Your task to perform on an android device: set default search engine in the chrome app Image 0: 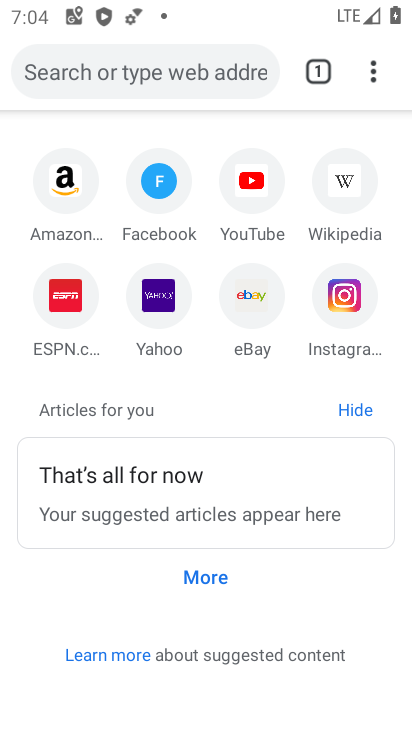
Step 0: press home button
Your task to perform on an android device: set default search engine in the chrome app Image 1: 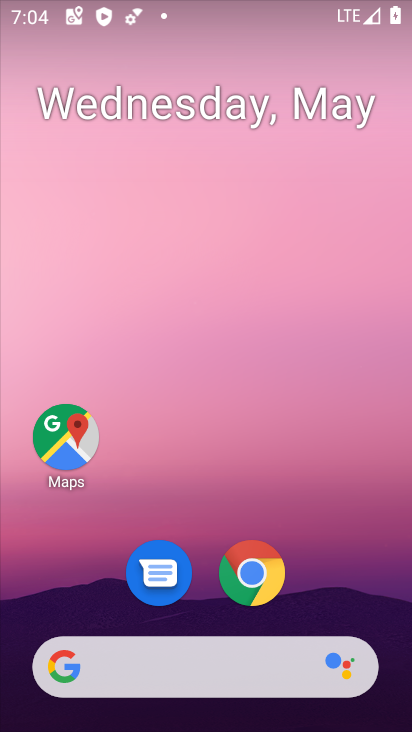
Step 1: drag from (303, 605) to (296, 265)
Your task to perform on an android device: set default search engine in the chrome app Image 2: 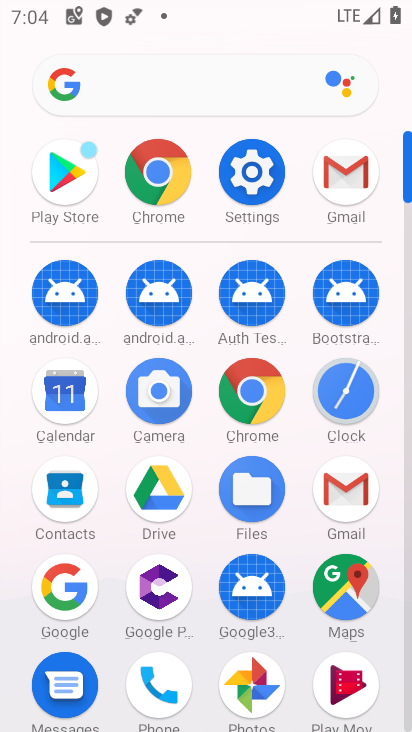
Step 2: click (253, 214)
Your task to perform on an android device: set default search engine in the chrome app Image 3: 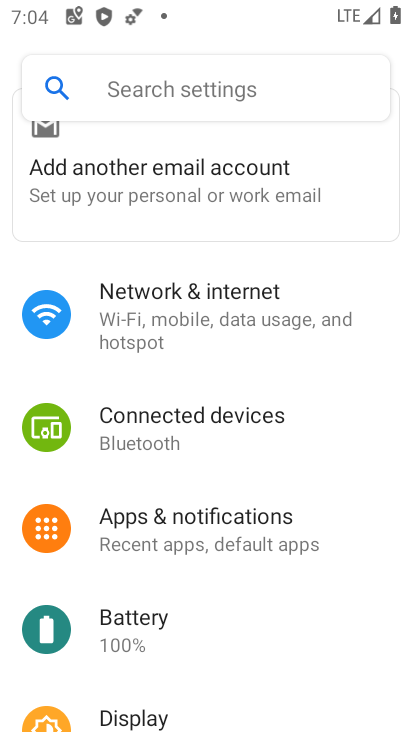
Step 3: drag from (251, 325) to (257, 267)
Your task to perform on an android device: set default search engine in the chrome app Image 4: 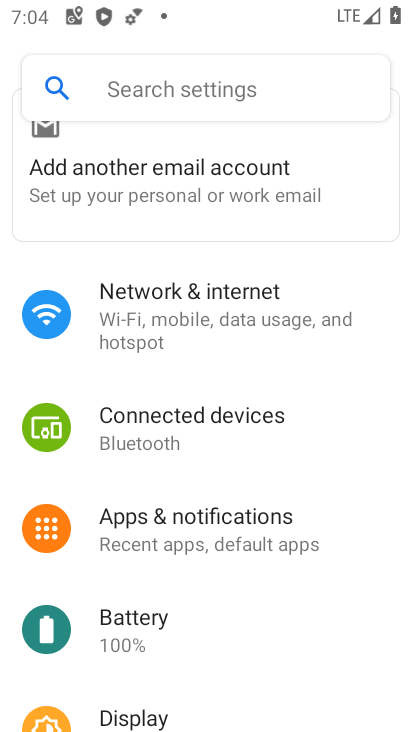
Step 4: drag from (178, 648) to (196, 365)
Your task to perform on an android device: set default search engine in the chrome app Image 5: 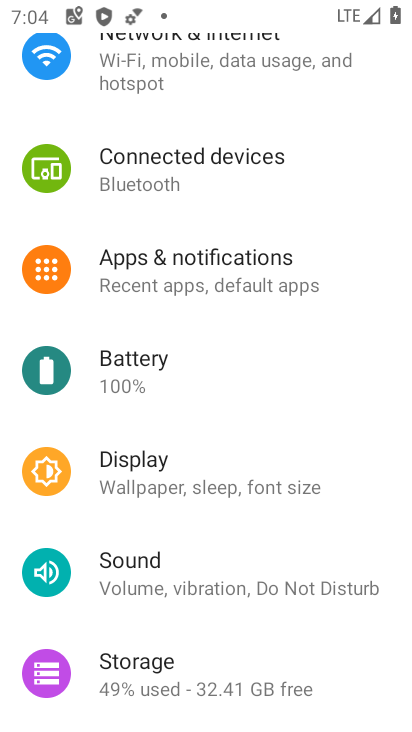
Step 5: drag from (139, 683) to (192, 395)
Your task to perform on an android device: set default search engine in the chrome app Image 6: 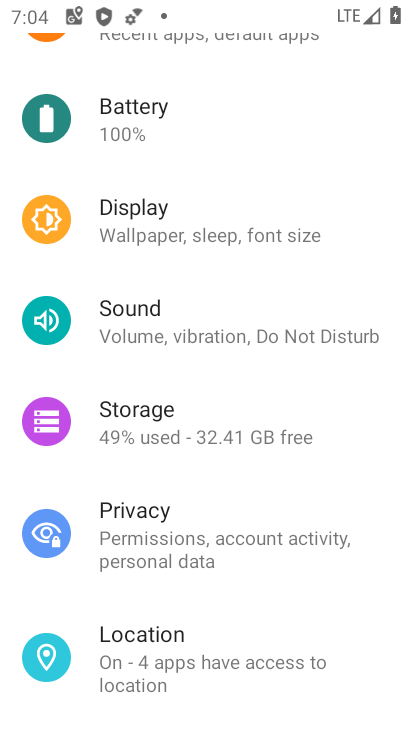
Step 6: drag from (184, 640) to (201, 342)
Your task to perform on an android device: set default search engine in the chrome app Image 7: 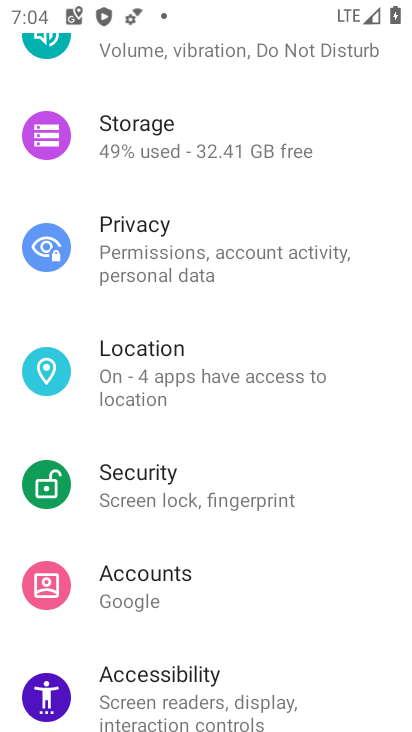
Step 7: click (182, 271)
Your task to perform on an android device: set default search engine in the chrome app Image 8: 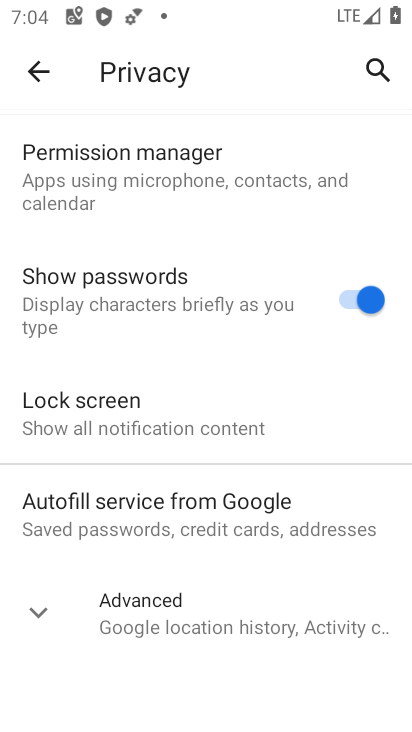
Step 8: task complete